Your task to perform on an android device: Go to battery settings Image 0: 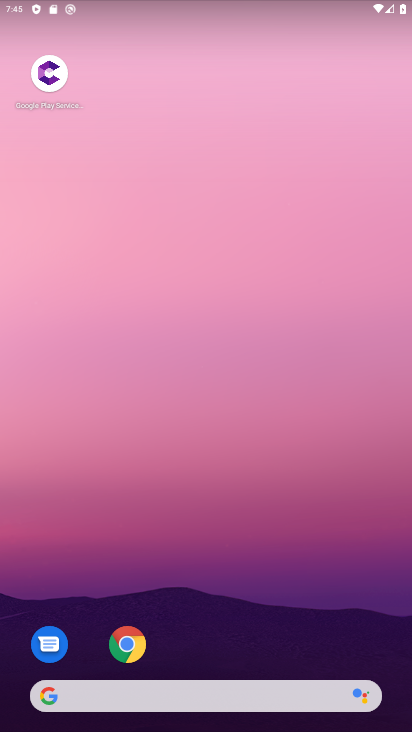
Step 0: drag from (245, 607) to (234, 344)
Your task to perform on an android device: Go to battery settings Image 1: 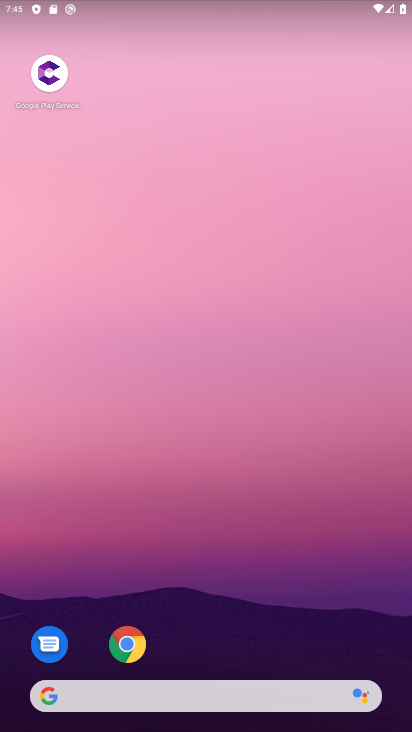
Step 1: drag from (227, 424) to (190, 185)
Your task to perform on an android device: Go to battery settings Image 2: 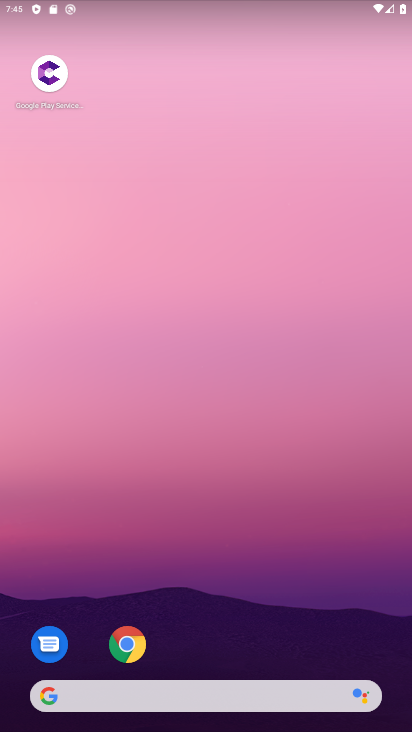
Step 2: drag from (171, 565) to (171, 152)
Your task to perform on an android device: Go to battery settings Image 3: 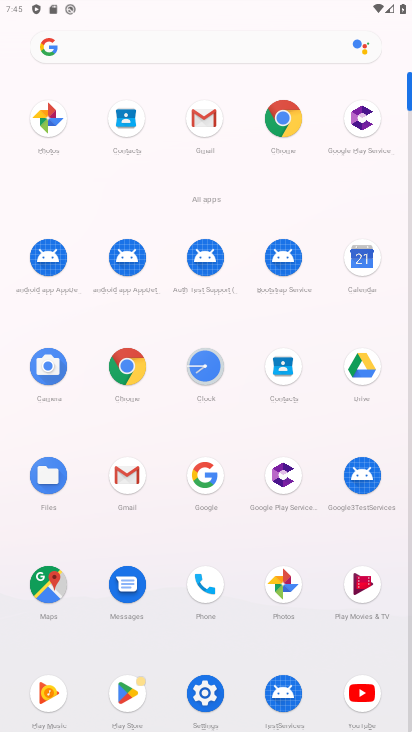
Step 3: click (195, 696)
Your task to perform on an android device: Go to battery settings Image 4: 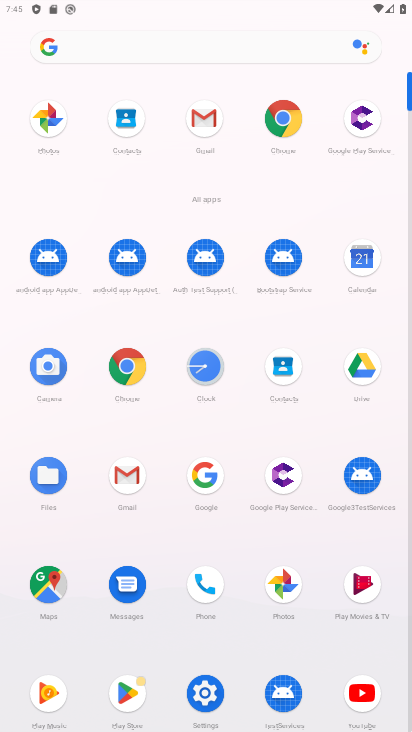
Step 4: click (202, 690)
Your task to perform on an android device: Go to battery settings Image 5: 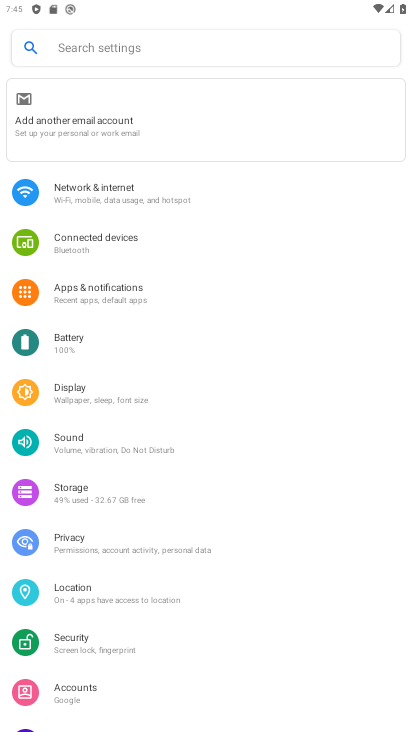
Step 5: click (67, 340)
Your task to perform on an android device: Go to battery settings Image 6: 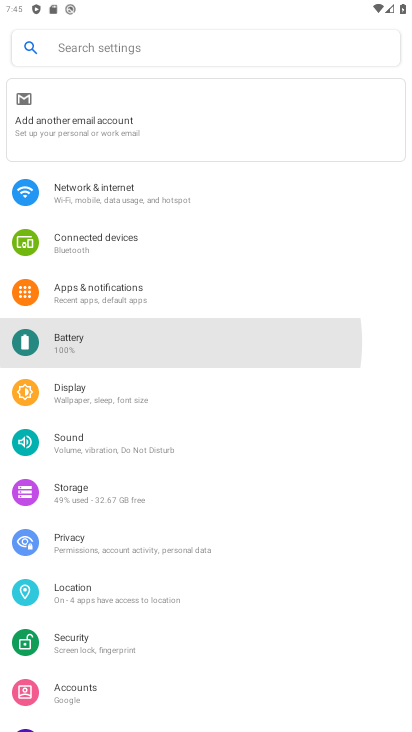
Step 6: click (67, 340)
Your task to perform on an android device: Go to battery settings Image 7: 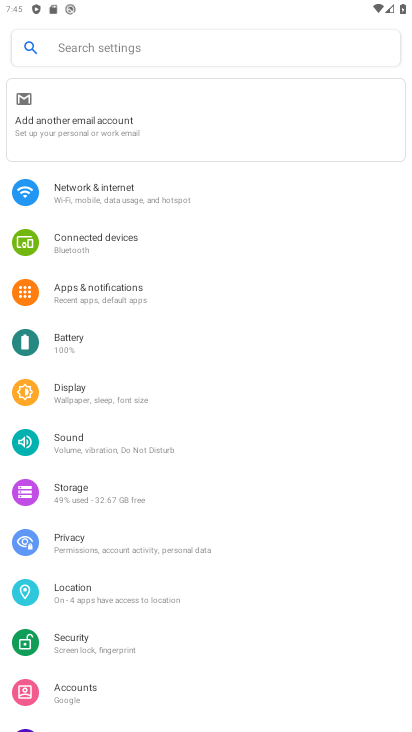
Step 7: click (67, 340)
Your task to perform on an android device: Go to battery settings Image 8: 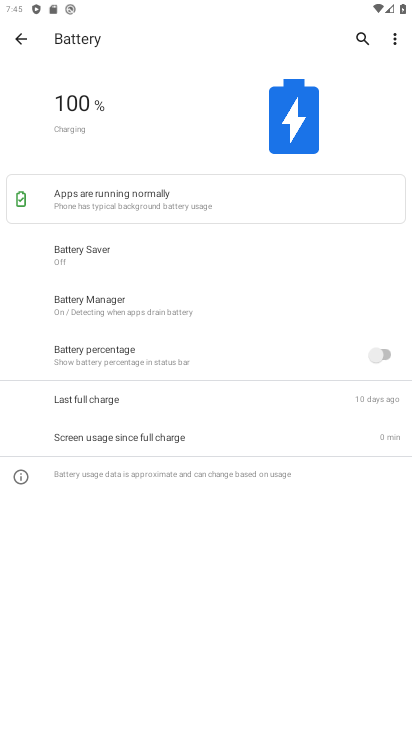
Step 8: task complete